Your task to perform on an android device: turn on sleep mode Image 0: 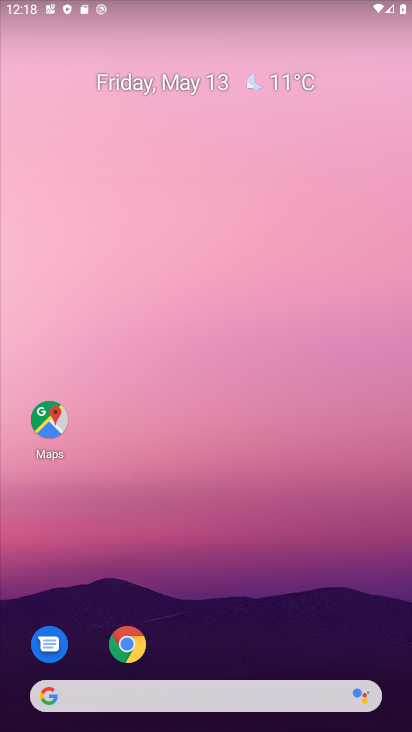
Step 0: drag from (230, 725) to (268, 116)
Your task to perform on an android device: turn on sleep mode Image 1: 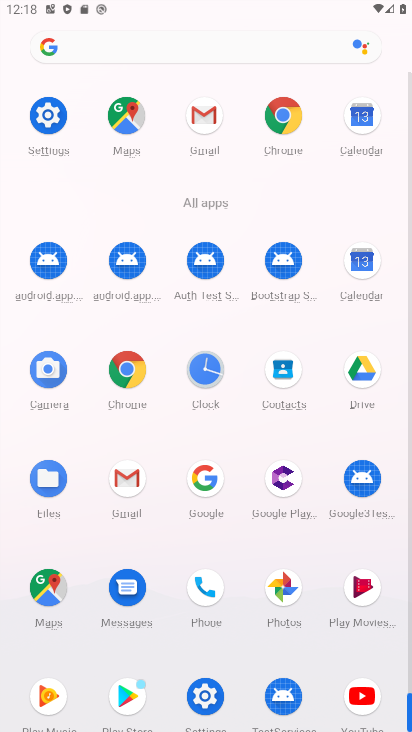
Step 1: click (49, 109)
Your task to perform on an android device: turn on sleep mode Image 2: 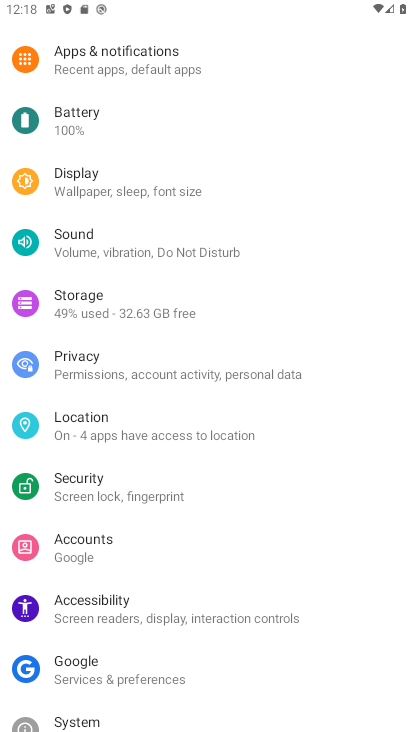
Step 2: drag from (137, 106) to (144, 415)
Your task to perform on an android device: turn on sleep mode Image 3: 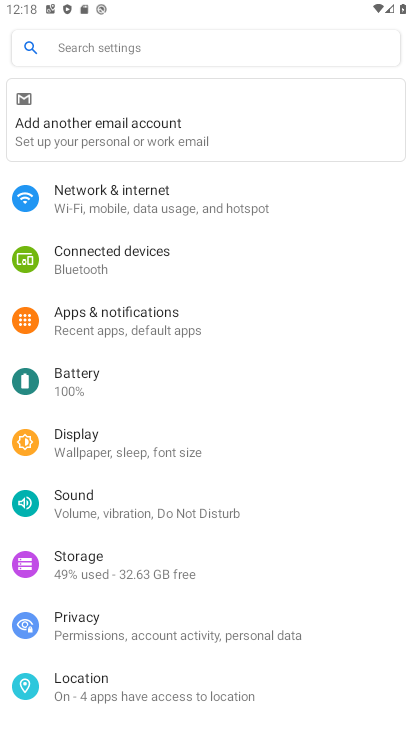
Step 3: click (140, 455)
Your task to perform on an android device: turn on sleep mode Image 4: 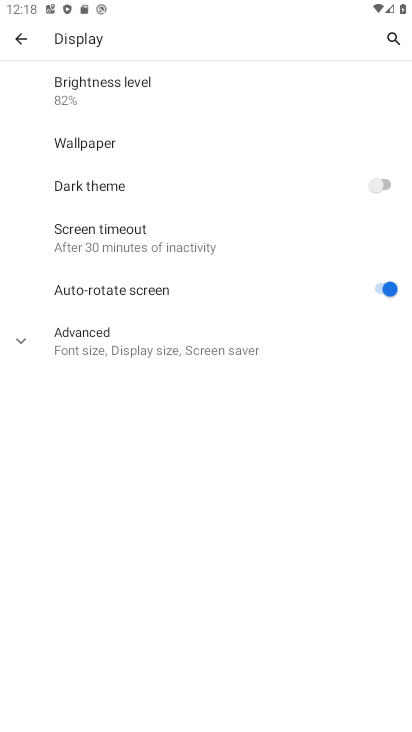
Step 4: click (22, 42)
Your task to perform on an android device: turn on sleep mode Image 5: 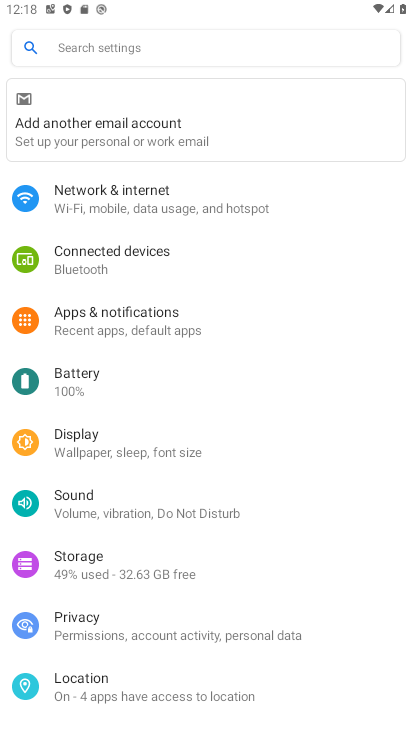
Step 5: task complete